Your task to perform on an android device: open sync settings in chrome Image 0: 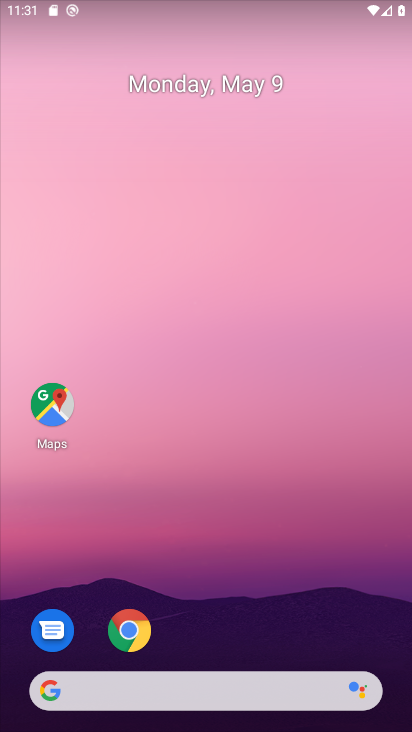
Step 0: click (143, 636)
Your task to perform on an android device: open sync settings in chrome Image 1: 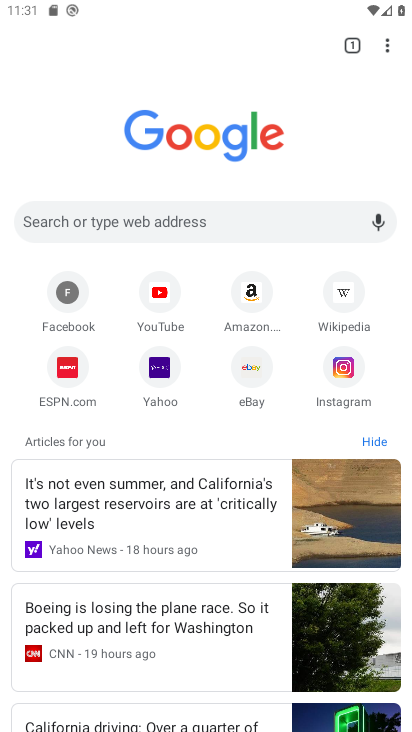
Step 1: click (387, 50)
Your task to perform on an android device: open sync settings in chrome Image 2: 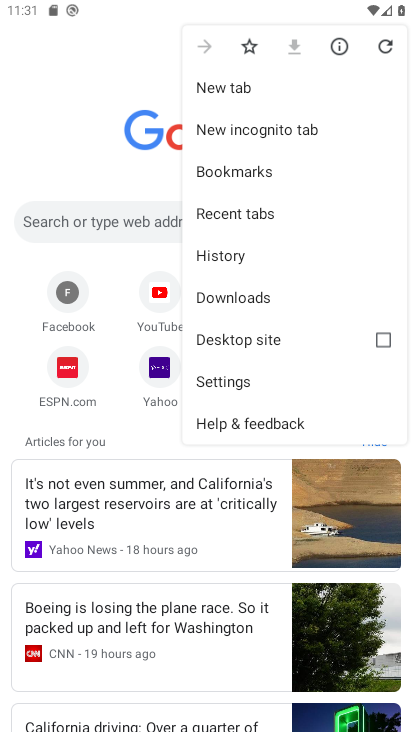
Step 2: click (227, 376)
Your task to perform on an android device: open sync settings in chrome Image 3: 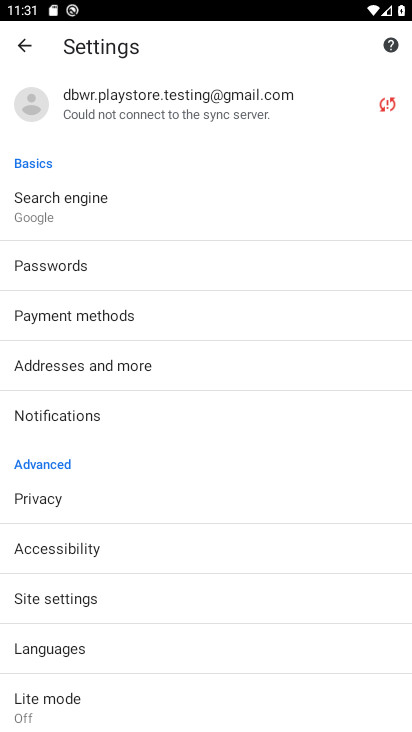
Step 3: click (51, 597)
Your task to perform on an android device: open sync settings in chrome Image 4: 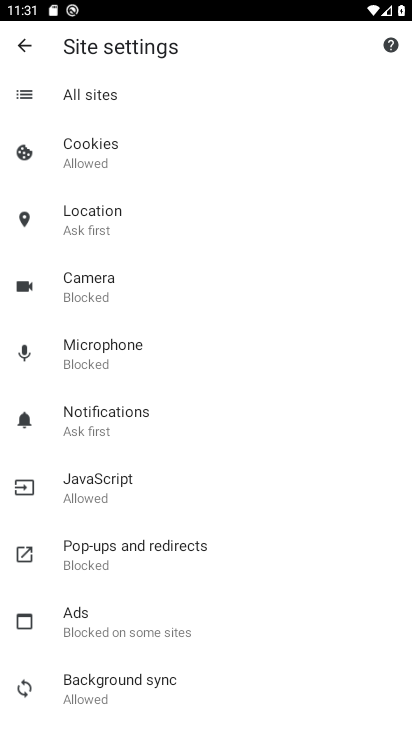
Step 4: click (72, 688)
Your task to perform on an android device: open sync settings in chrome Image 5: 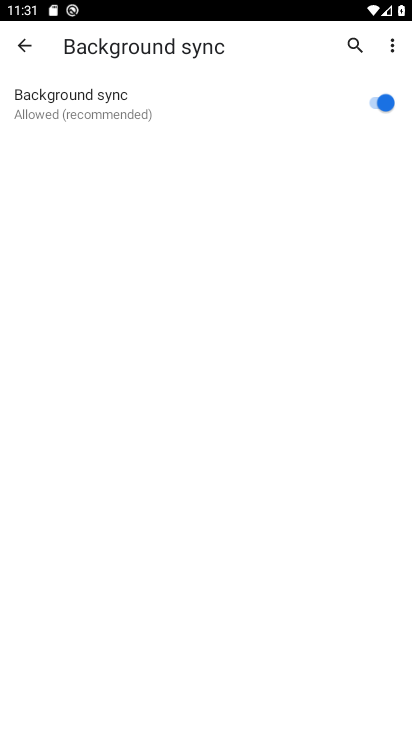
Step 5: task complete